Your task to perform on an android device: open app "McDonald's" (install if not already installed) Image 0: 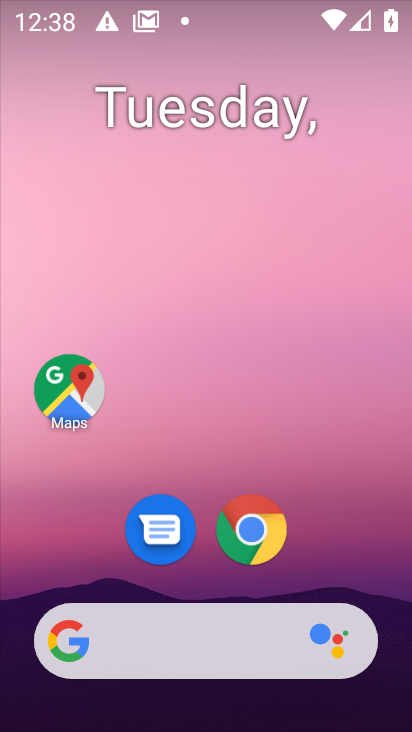
Step 0: drag from (199, 649) to (238, 3)
Your task to perform on an android device: open app "McDonald's" (install if not already installed) Image 1: 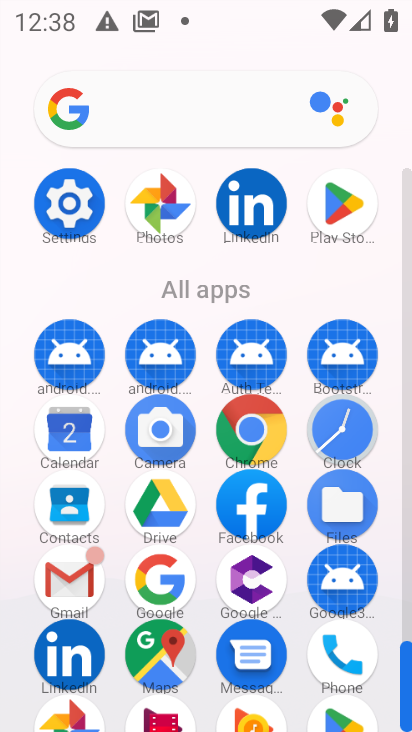
Step 1: click (337, 217)
Your task to perform on an android device: open app "McDonald's" (install if not already installed) Image 2: 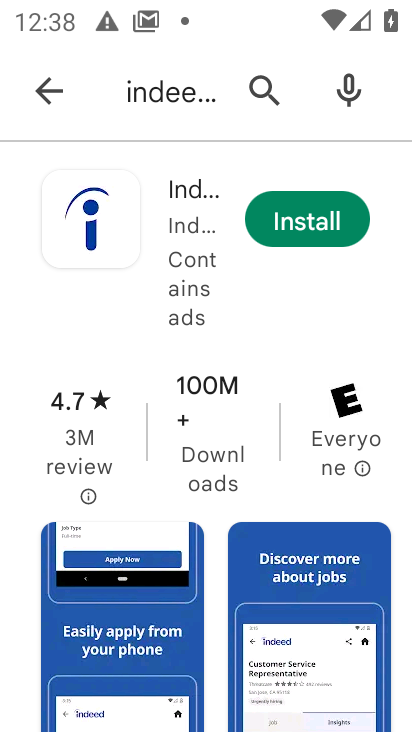
Step 2: click (256, 102)
Your task to perform on an android device: open app "McDonald's" (install if not already installed) Image 3: 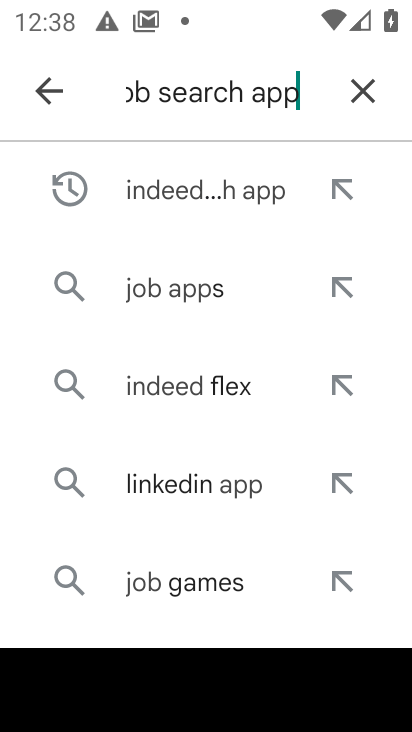
Step 3: click (353, 98)
Your task to perform on an android device: open app "McDonald's" (install if not already installed) Image 4: 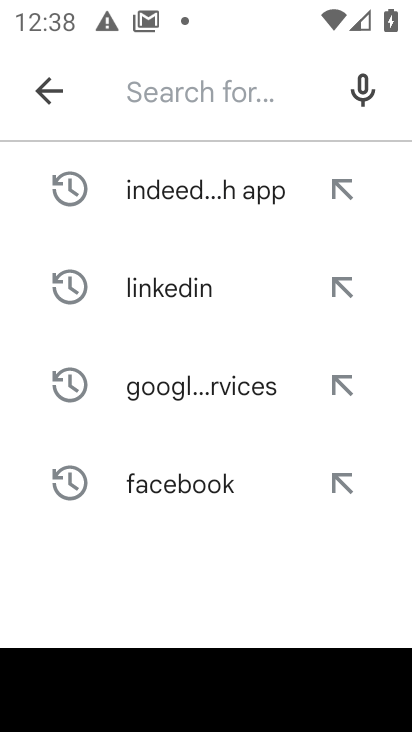
Step 4: type "mcdonalds"
Your task to perform on an android device: open app "McDonald's" (install if not already installed) Image 5: 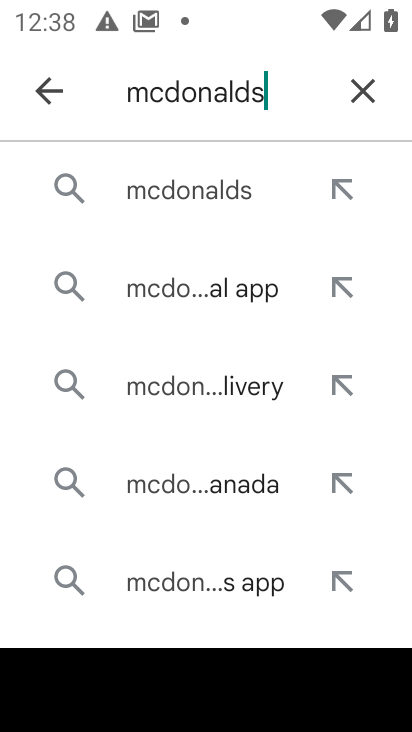
Step 5: click (207, 199)
Your task to perform on an android device: open app "McDonald's" (install if not already installed) Image 6: 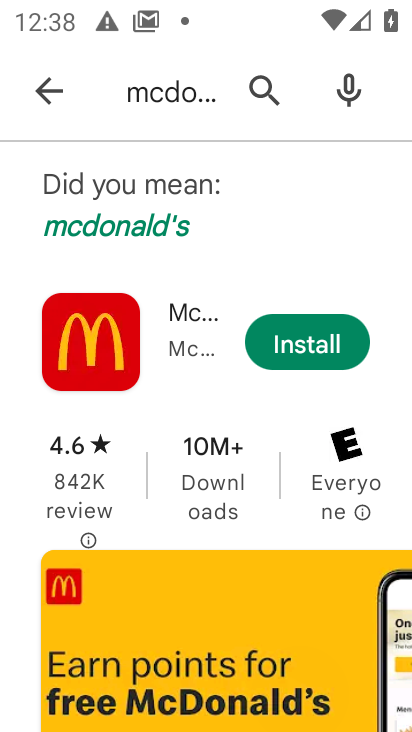
Step 6: click (283, 320)
Your task to perform on an android device: open app "McDonald's" (install if not already installed) Image 7: 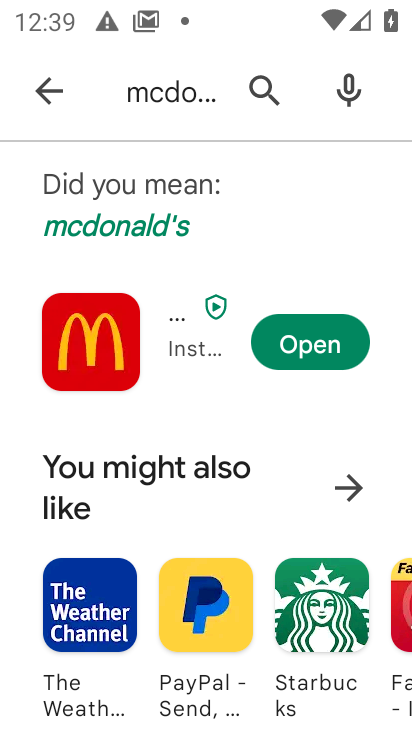
Step 7: click (305, 331)
Your task to perform on an android device: open app "McDonald's" (install if not already installed) Image 8: 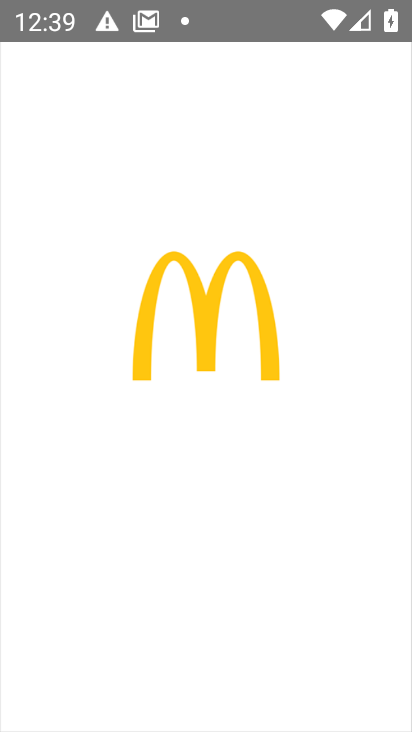
Step 8: task complete